Your task to perform on an android device: toggle improve location accuracy Image 0: 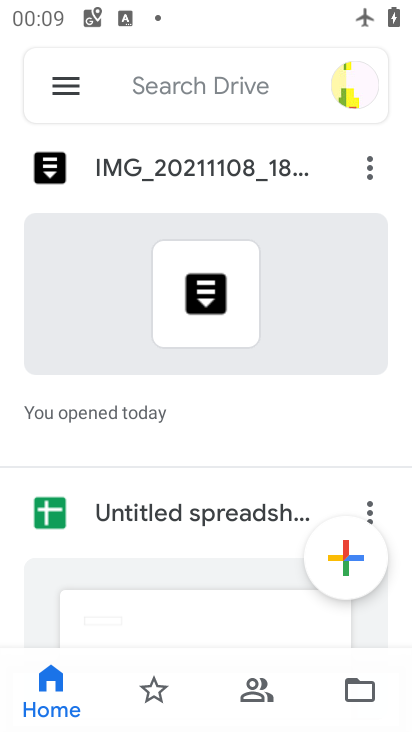
Step 0: press home button
Your task to perform on an android device: toggle improve location accuracy Image 1: 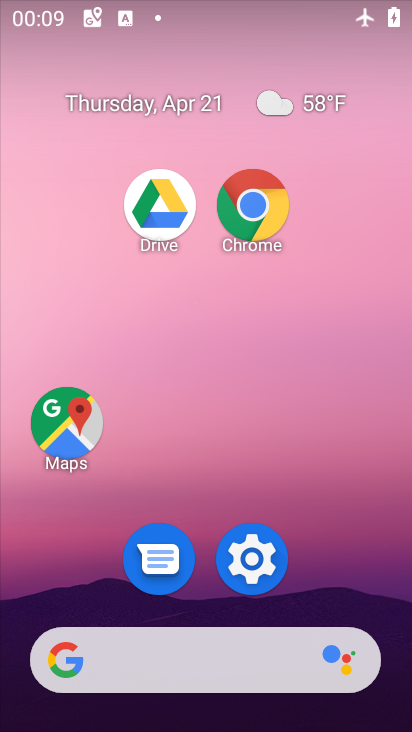
Step 1: click (274, 548)
Your task to perform on an android device: toggle improve location accuracy Image 2: 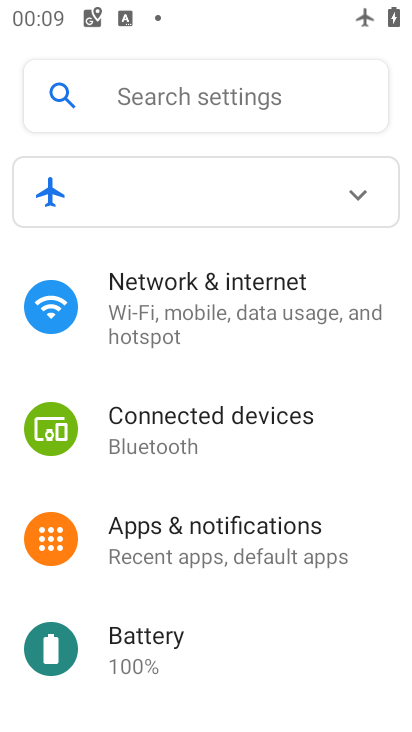
Step 2: drag from (211, 645) to (199, 196)
Your task to perform on an android device: toggle improve location accuracy Image 3: 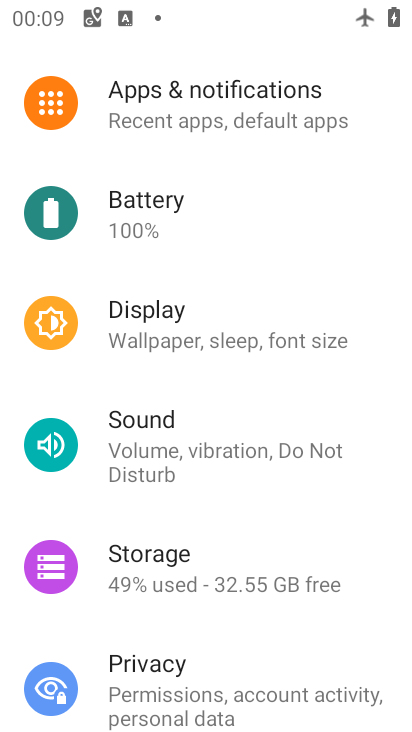
Step 3: drag from (248, 660) to (223, 260)
Your task to perform on an android device: toggle improve location accuracy Image 4: 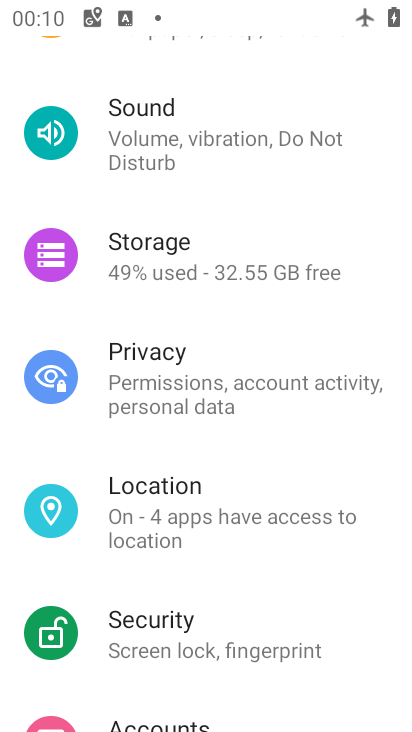
Step 4: click (196, 545)
Your task to perform on an android device: toggle improve location accuracy Image 5: 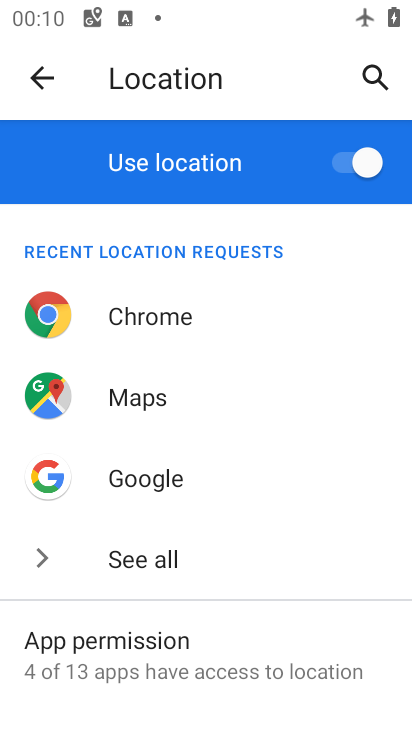
Step 5: drag from (244, 671) to (238, 322)
Your task to perform on an android device: toggle improve location accuracy Image 6: 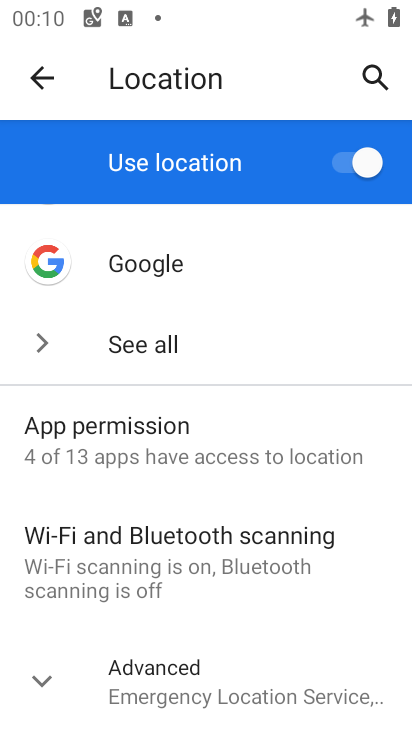
Step 6: click (204, 696)
Your task to perform on an android device: toggle improve location accuracy Image 7: 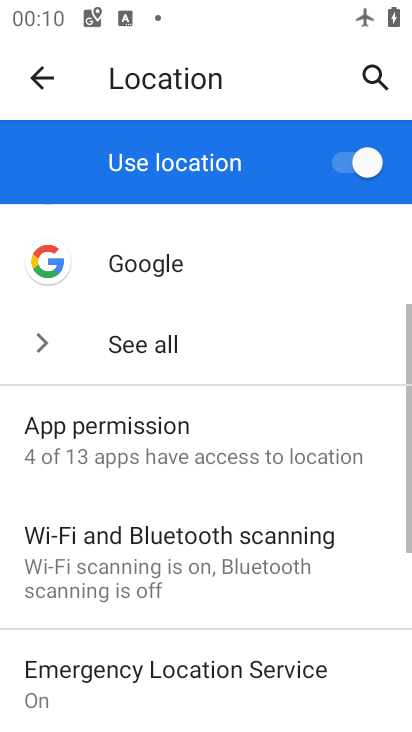
Step 7: drag from (248, 678) to (244, 260)
Your task to perform on an android device: toggle improve location accuracy Image 8: 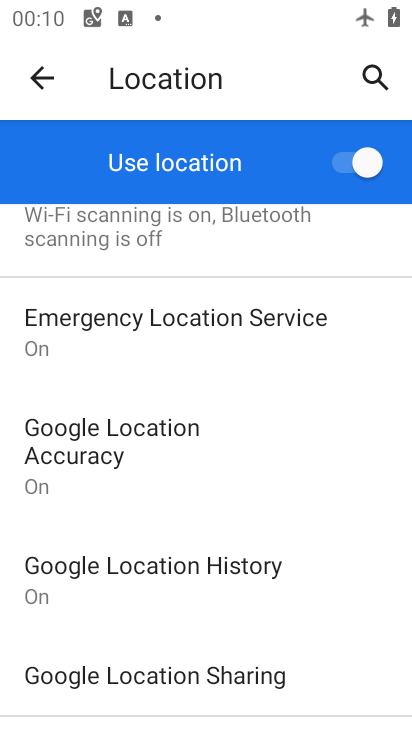
Step 8: click (184, 481)
Your task to perform on an android device: toggle improve location accuracy Image 9: 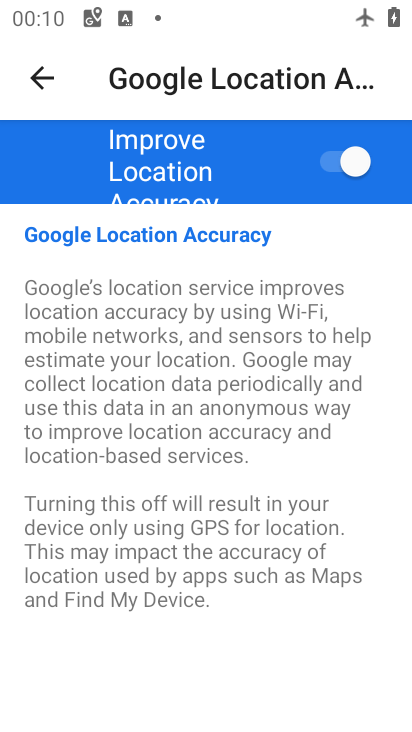
Step 9: click (332, 160)
Your task to perform on an android device: toggle improve location accuracy Image 10: 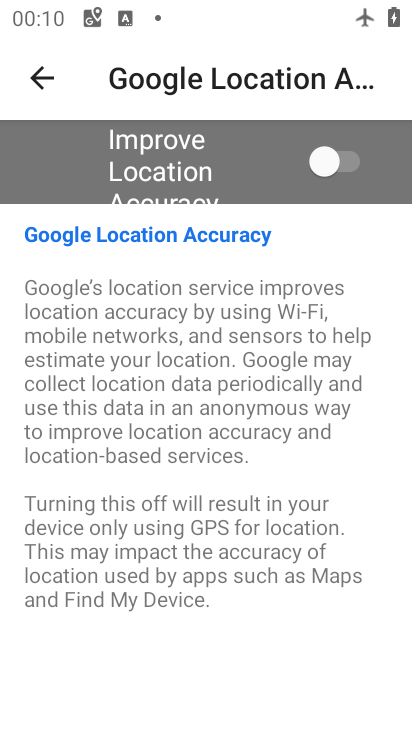
Step 10: task complete